Your task to perform on an android device: Open location settings Image 0: 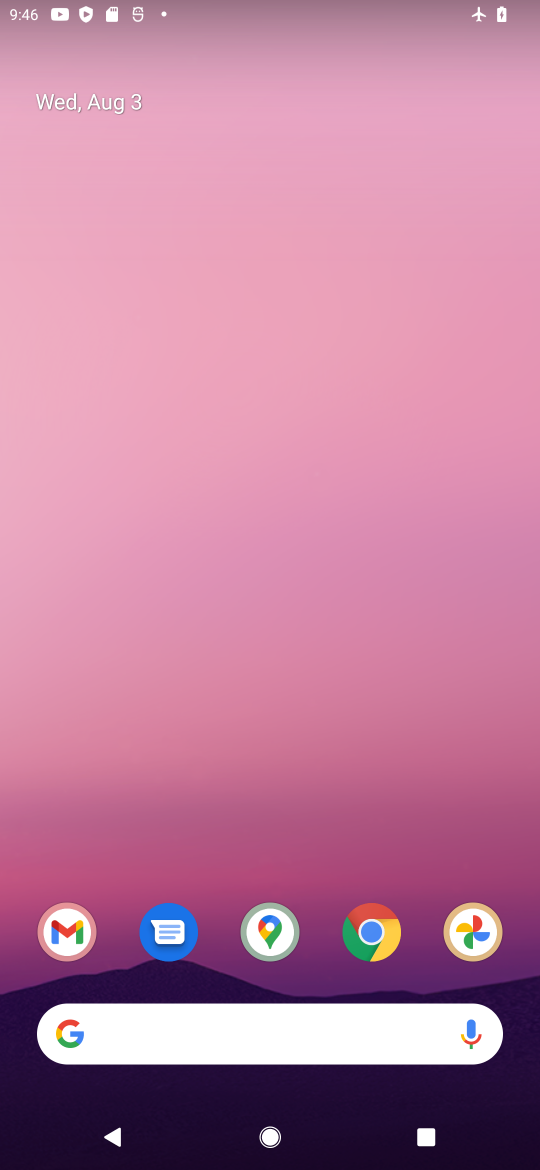
Step 0: drag from (343, 868) to (267, 19)
Your task to perform on an android device: Open location settings Image 1: 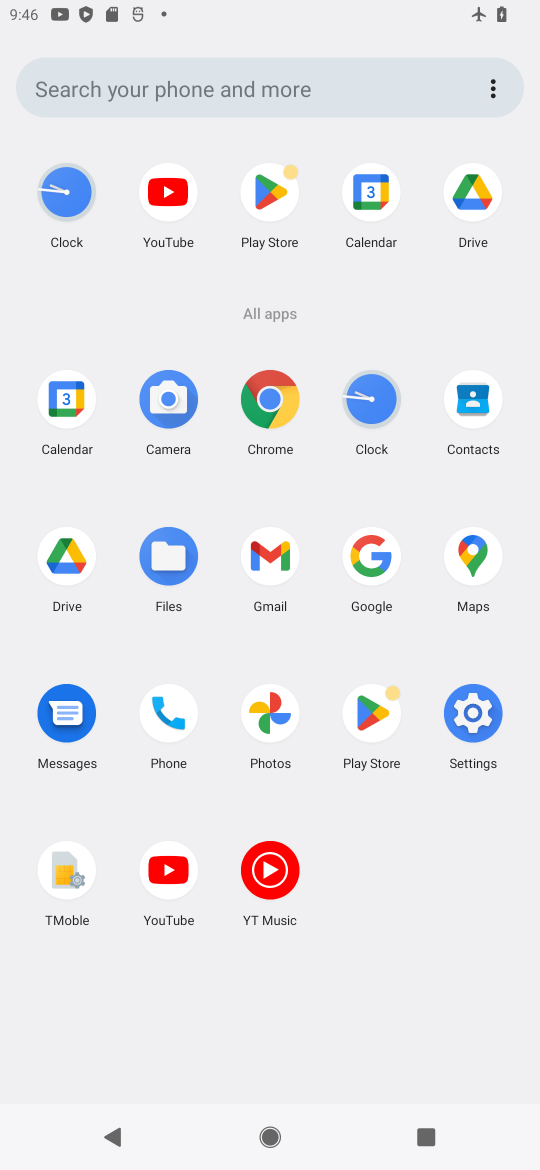
Step 1: click (490, 723)
Your task to perform on an android device: Open location settings Image 2: 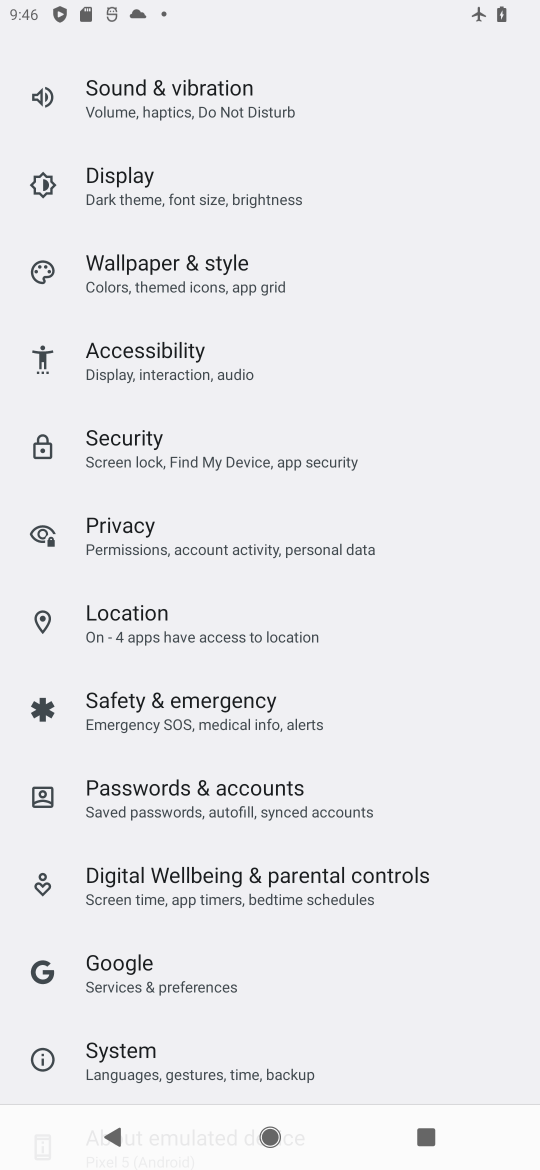
Step 2: click (286, 639)
Your task to perform on an android device: Open location settings Image 3: 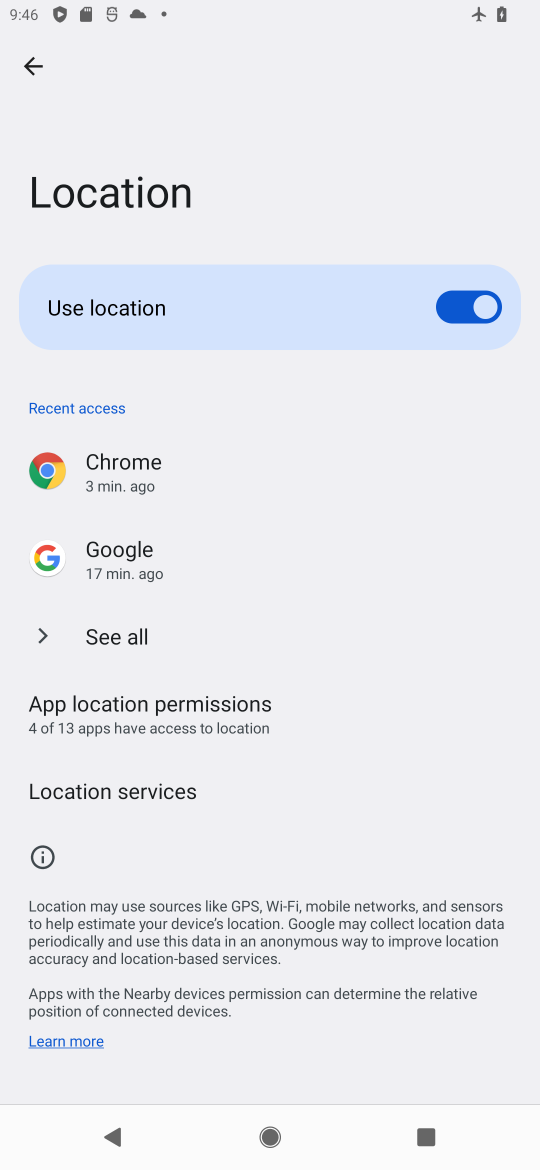
Step 3: task complete